Your task to perform on an android device: Go to wifi settings Image 0: 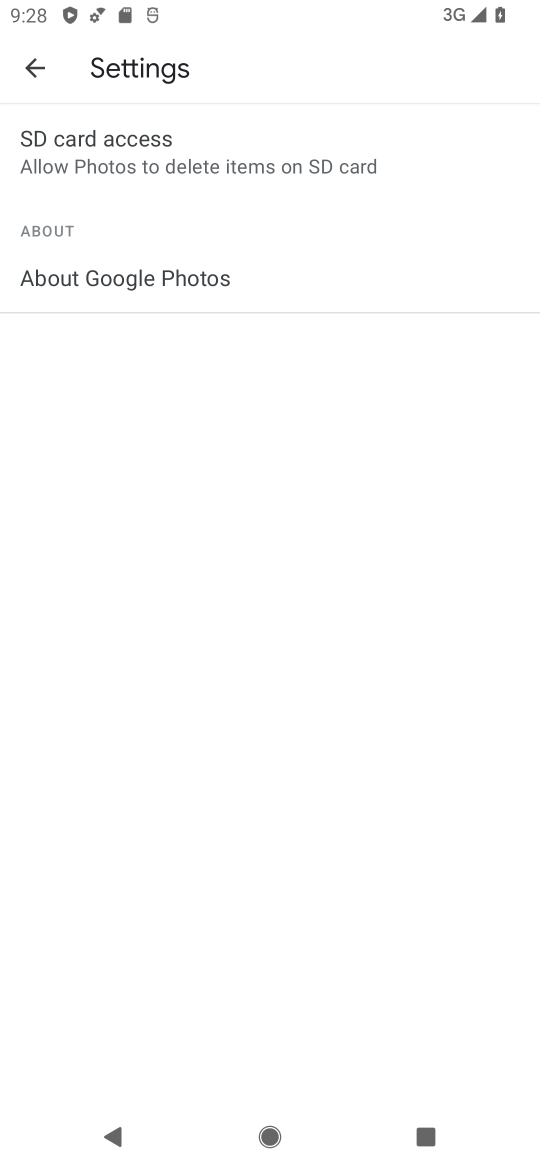
Step 0: press home button
Your task to perform on an android device: Go to wifi settings Image 1: 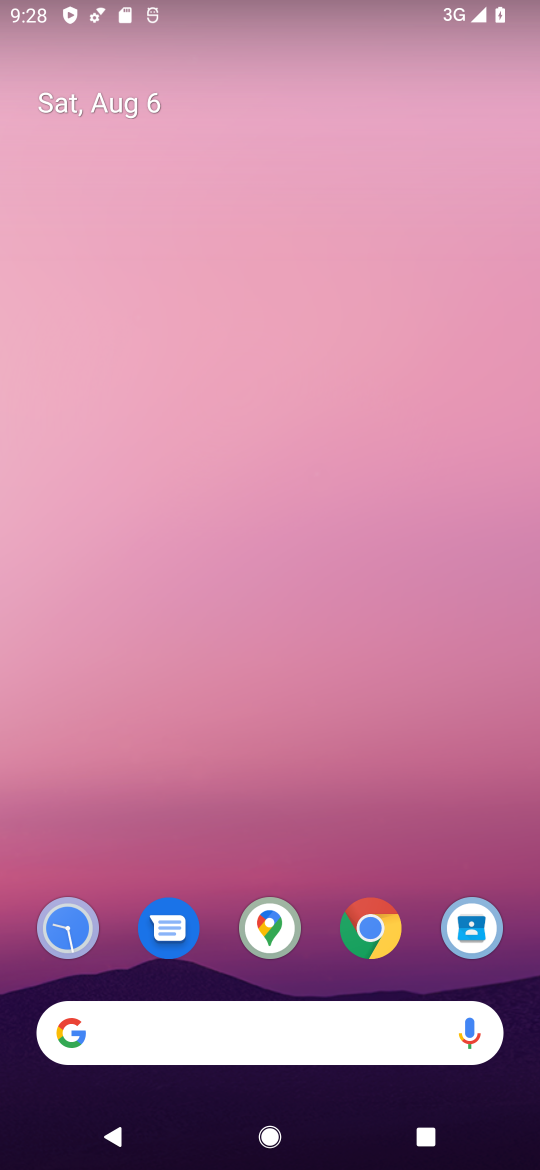
Step 1: drag from (312, 807) to (306, 105)
Your task to perform on an android device: Go to wifi settings Image 2: 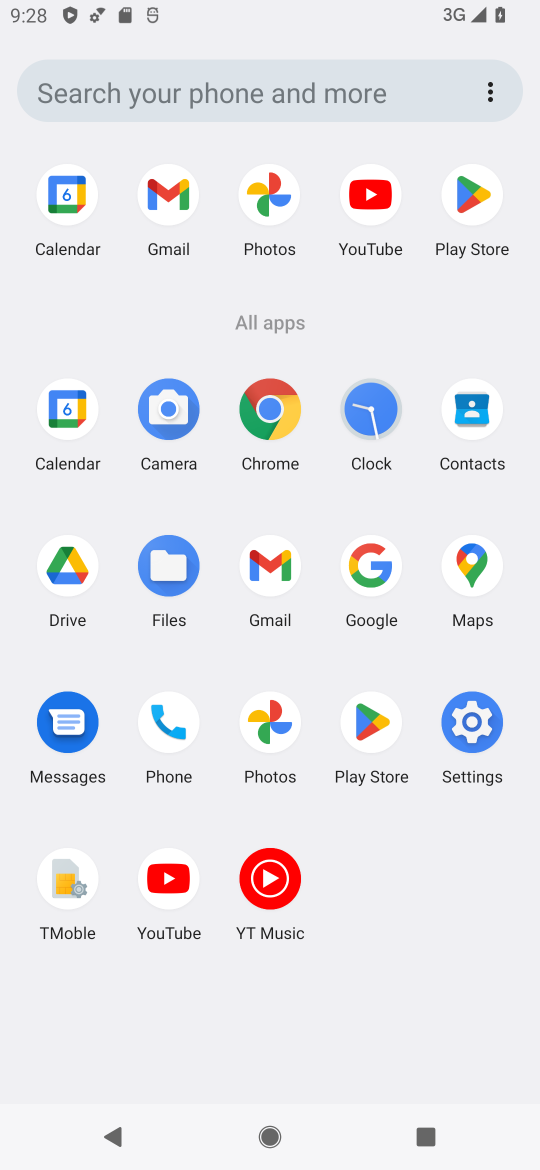
Step 2: click (481, 720)
Your task to perform on an android device: Go to wifi settings Image 3: 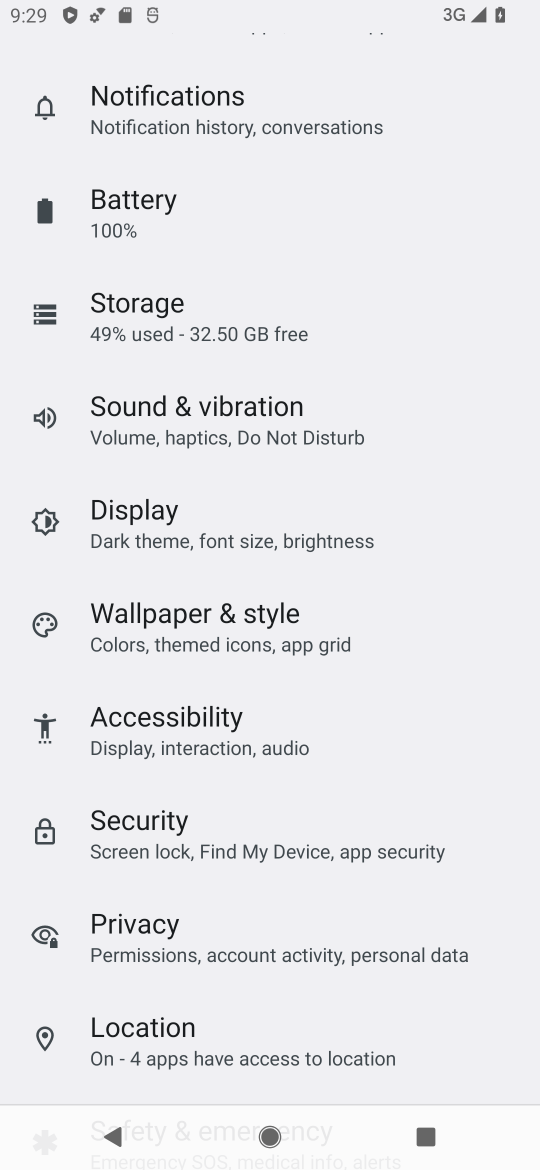
Step 3: drag from (248, 199) to (185, 612)
Your task to perform on an android device: Go to wifi settings Image 4: 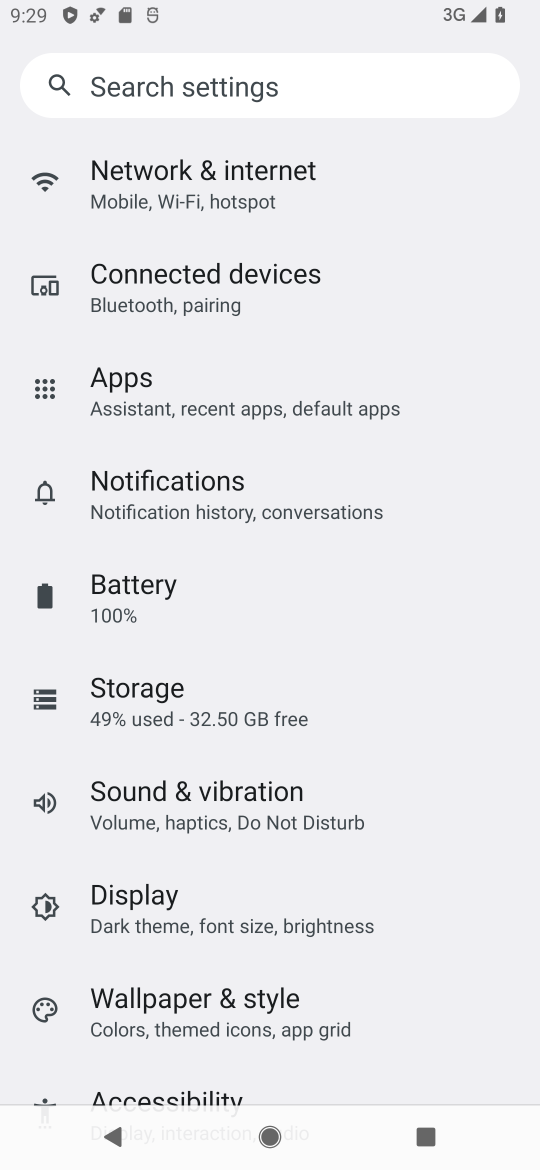
Step 4: click (195, 173)
Your task to perform on an android device: Go to wifi settings Image 5: 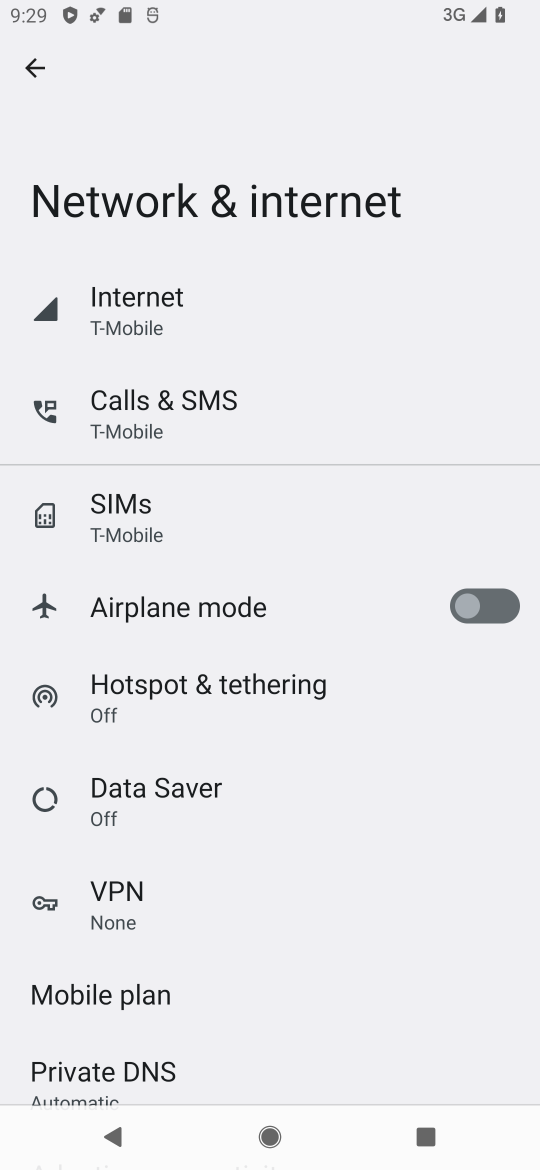
Step 5: click (148, 296)
Your task to perform on an android device: Go to wifi settings Image 6: 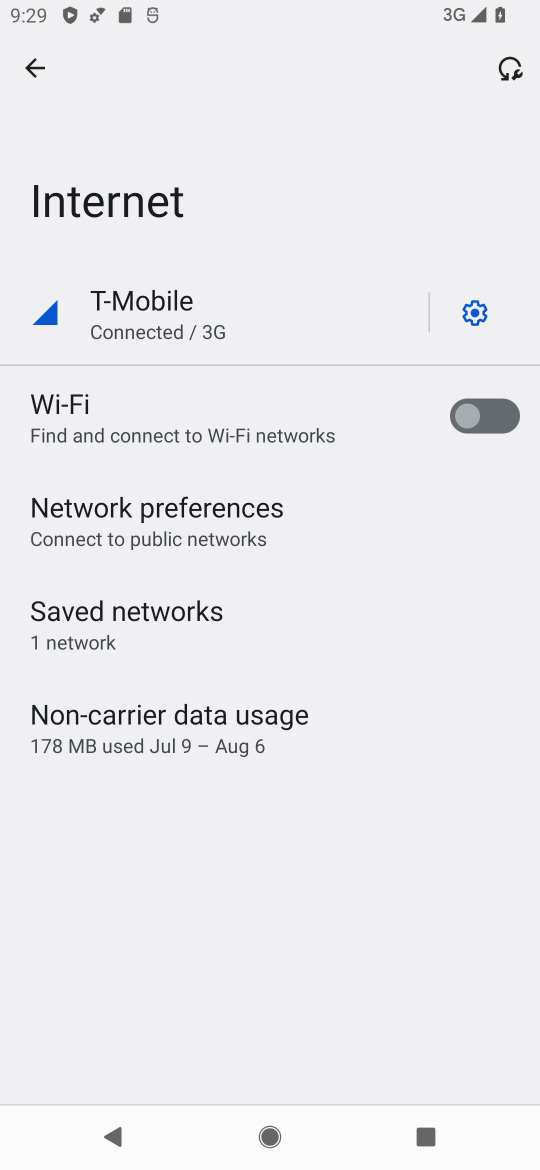
Step 6: task complete